Your task to perform on an android device: Go to Yahoo.com Image 0: 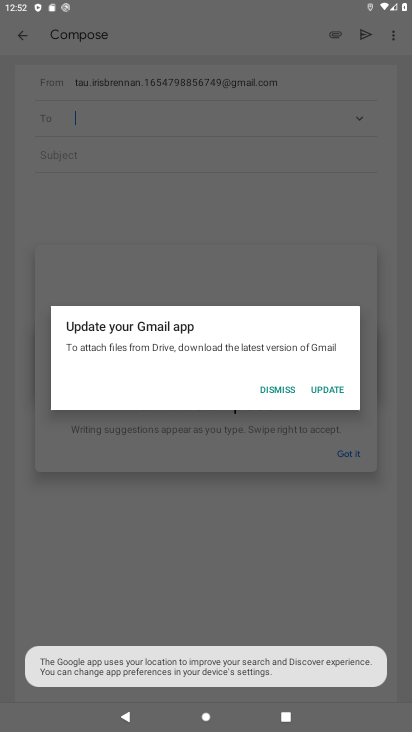
Step 0: press home button
Your task to perform on an android device: Go to Yahoo.com Image 1: 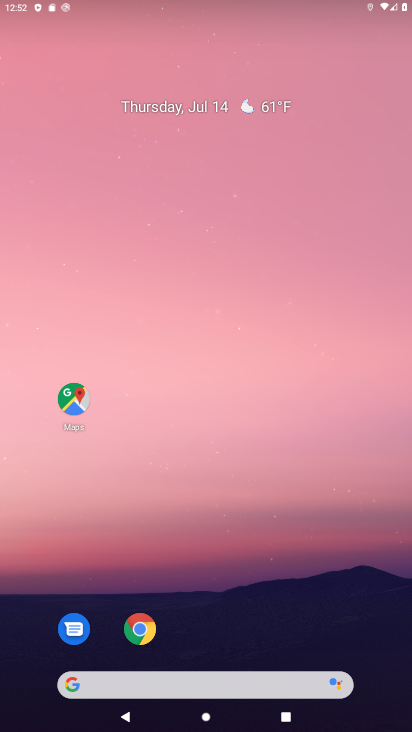
Step 1: drag from (231, 583) to (234, 147)
Your task to perform on an android device: Go to Yahoo.com Image 2: 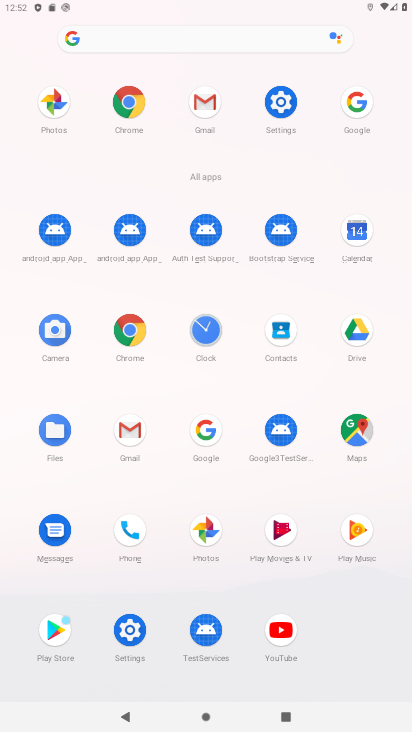
Step 2: click (127, 106)
Your task to perform on an android device: Go to Yahoo.com Image 3: 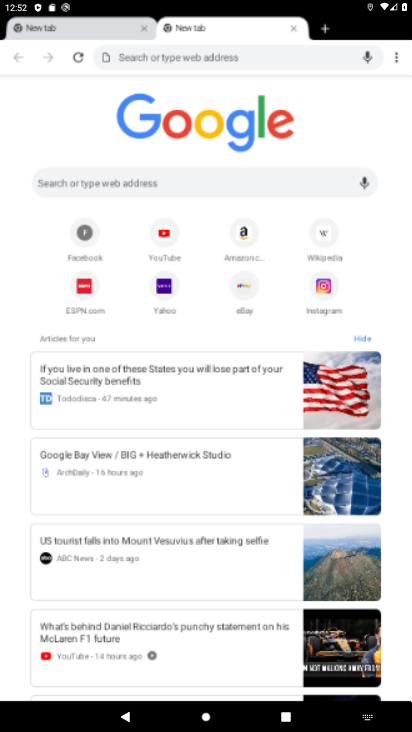
Step 3: click (161, 293)
Your task to perform on an android device: Go to Yahoo.com Image 4: 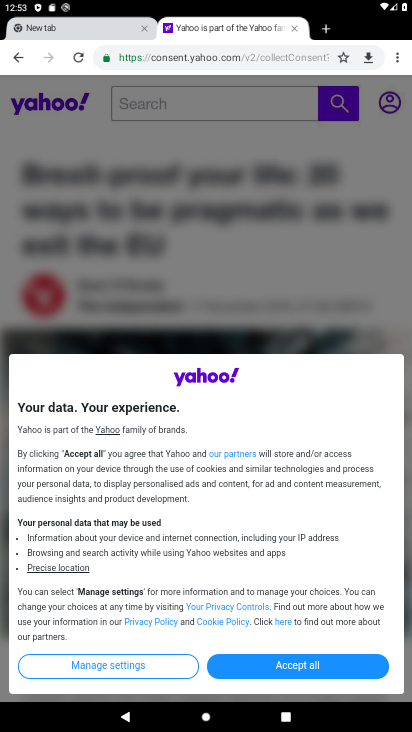
Step 4: task complete